Your task to perform on an android device: Open the phone app and click the voicemail tab. Image 0: 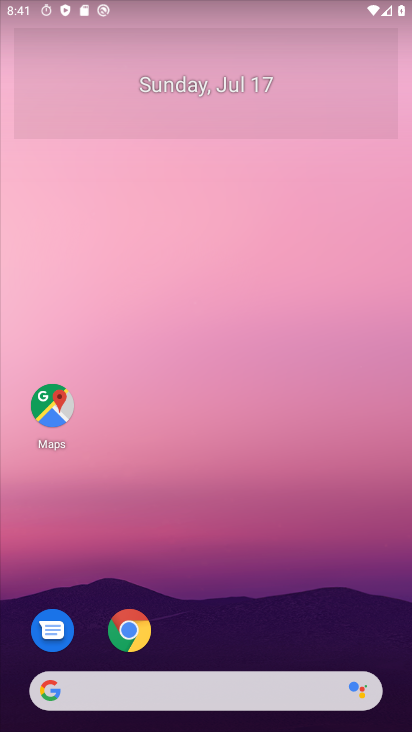
Step 0: drag from (169, 443) to (241, 280)
Your task to perform on an android device: Open the phone app and click the voicemail tab. Image 1: 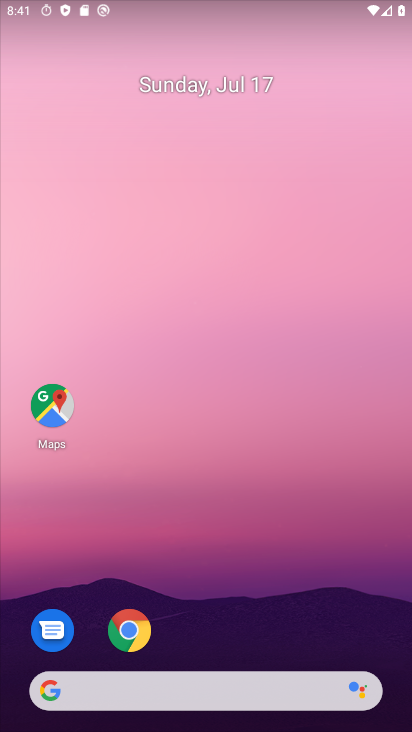
Step 1: drag from (8, 717) to (391, 87)
Your task to perform on an android device: Open the phone app and click the voicemail tab. Image 2: 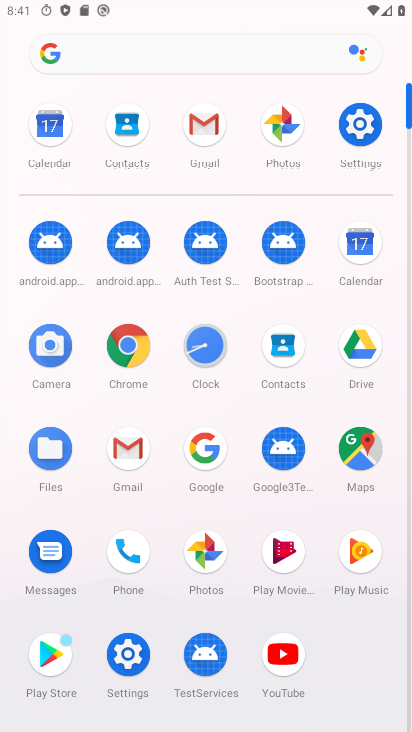
Step 2: click (276, 355)
Your task to perform on an android device: Open the phone app and click the voicemail tab. Image 3: 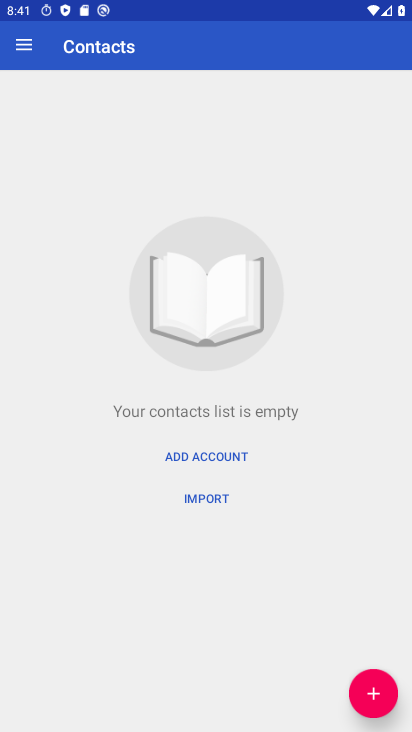
Step 3: click (20, 42)
Your task to perform on an android device: Open the phone app and click the voicemail tab. Image 4: 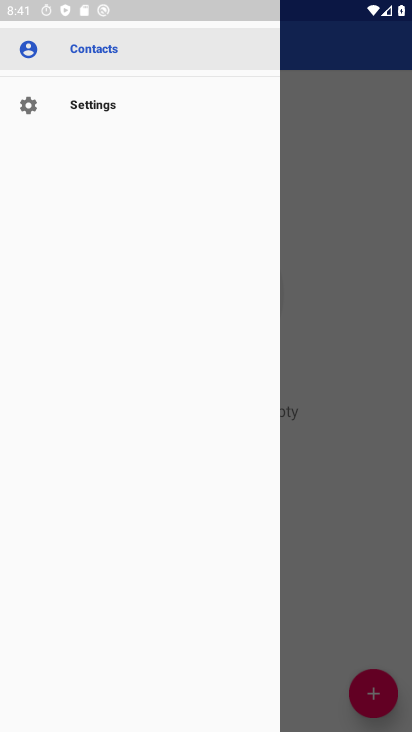
Step 4: click (331, 134)
Your task to perform on an android device: Open the phone app and click the voicemail tab. Image 5: 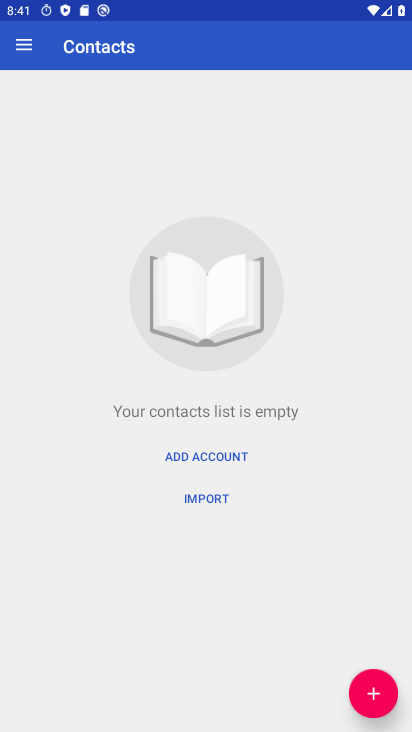
Step 5: click (385, 692)
Your task to perform on an android device: Open the phone app and click the voicemail tab. Image 6: 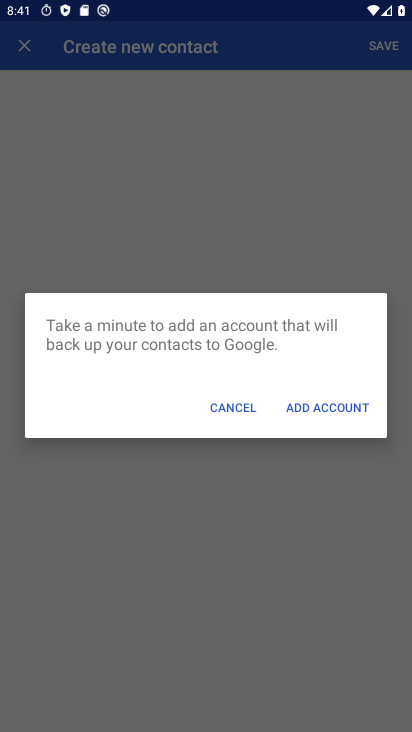
Step 6: click (217, 401)
Your task to perform on an android device: Open the phone app and click the voicemail tab. Image 7: 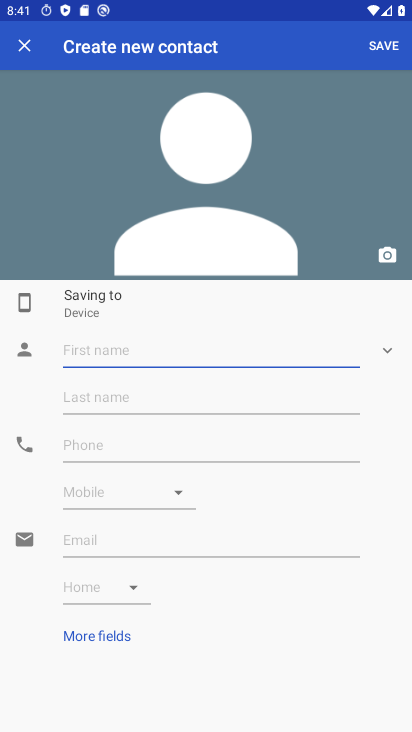
Step 7: task complete